Your task to perform on an android device: clear history in the chrome app Image 0: 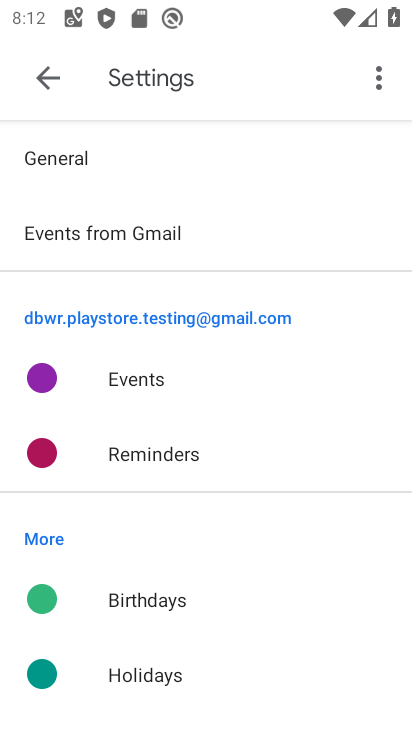
Step 0: press home button
Your task to perform on an android device: clear history in the chrome app Image 1: 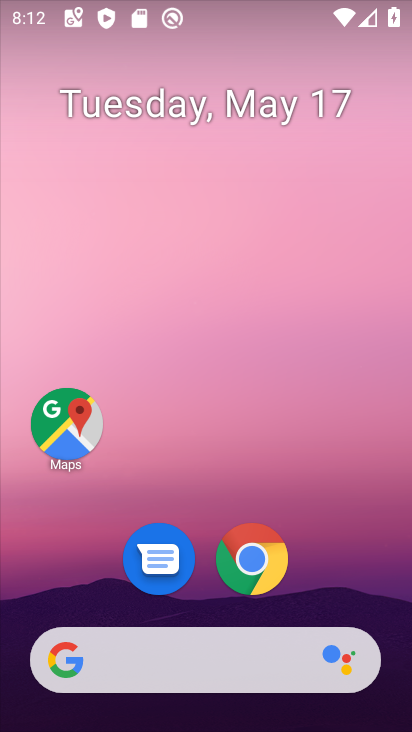
Step 1: click (257, 561)
Your task to perform on an android device: clear history in the chrome app Image 2: 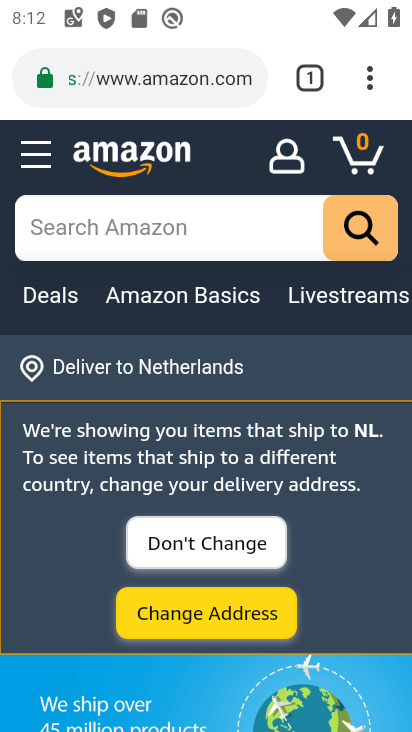
Step 2: click (365, 85)
Your task to perform on an android device: clear history in the chrome app Image 3: 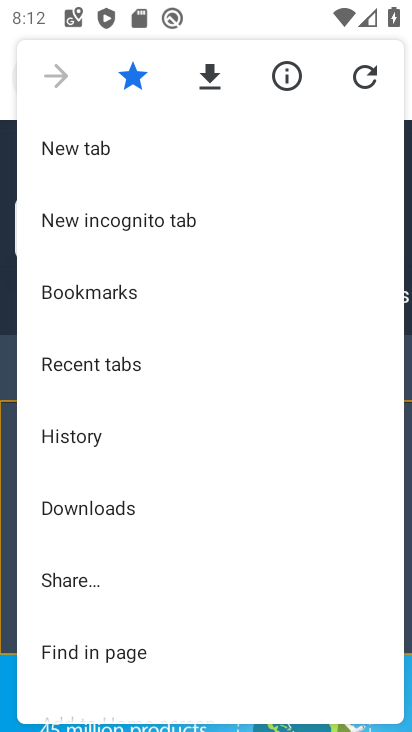
Step 3: click (70, 441)
Your task to perform on an android device: clear history in the chrome app Image 4: 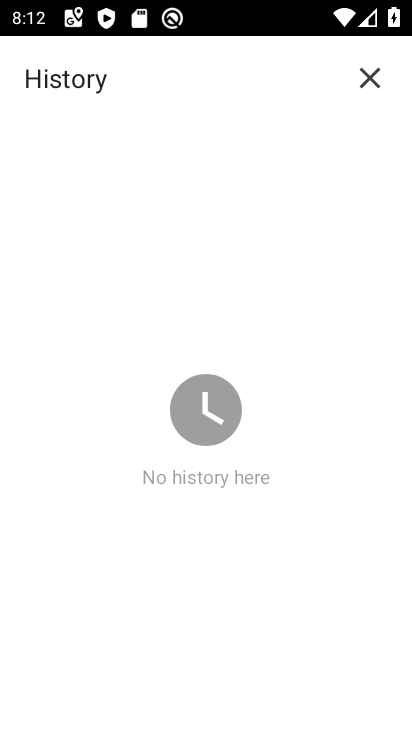
Step 4: task complete